Your task to perform on an android device: Go to Android settings Image 0: 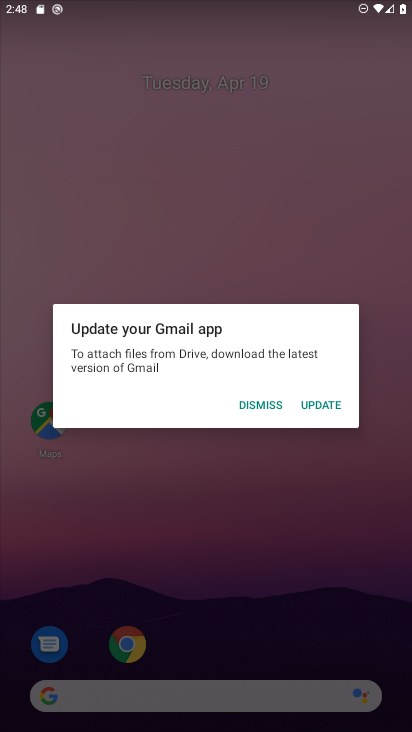
Step 0: press home button
Your task to perform on an android device: Go to Android settings Image 1: 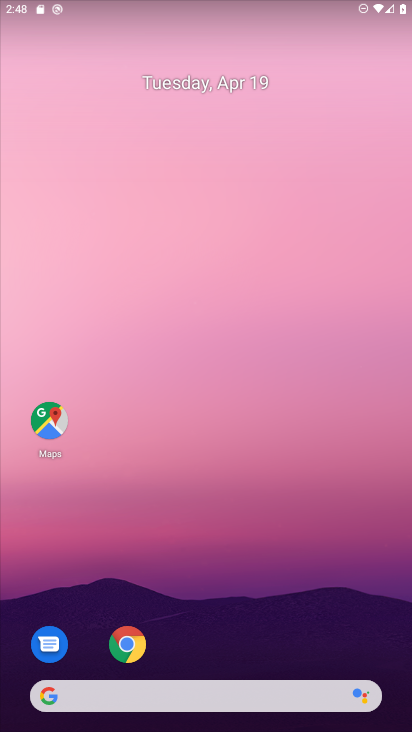
Step 1: drag from (202, 598) to (119, 88)
Your task to perform on an android device: Go to Android settings Image 2: 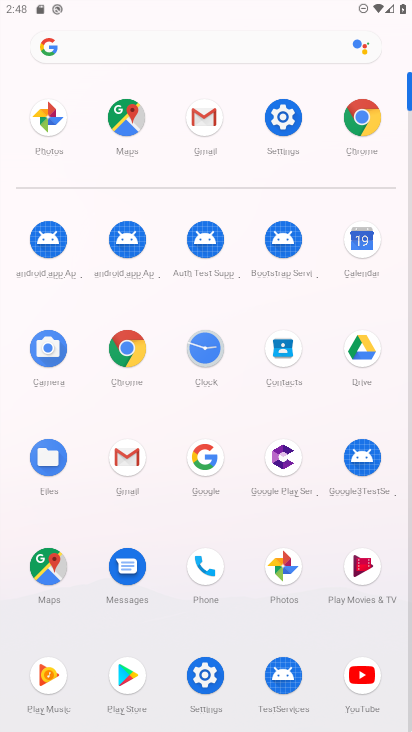
Step 2: click (283, 107)
Your task to perform on an android device: Go to Android settings Image 3: 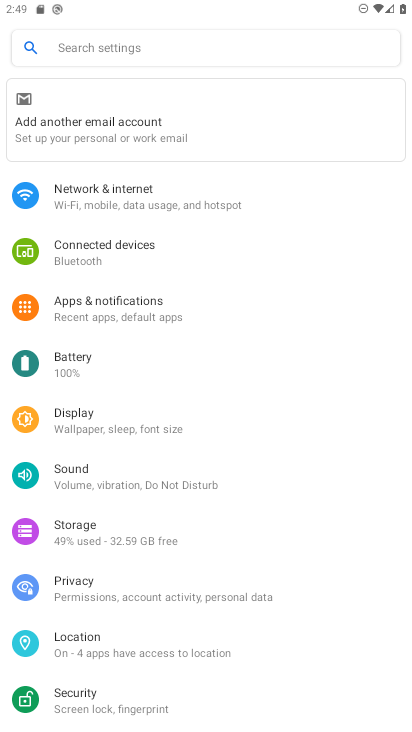
Step 3: drag from (123, 615) to (128, 217)
Your task to perform on an android device: Go to Android settings Image 4: 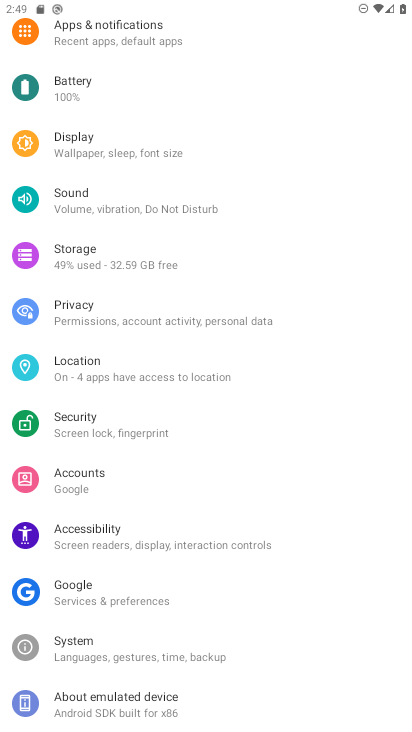
Step 4: click (70, 708)
Your task to perform on an android device: Go to Android settings Image 5: 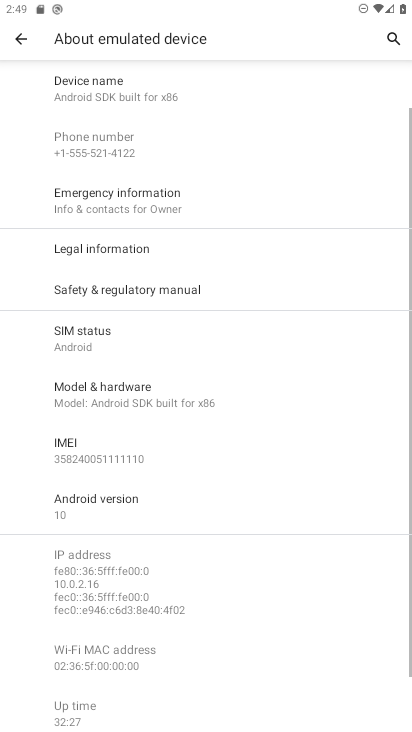
Step 5: drag from (115, 587) to (108, 238)
Your task to perform on an android device: Go to Android settings Image 6: 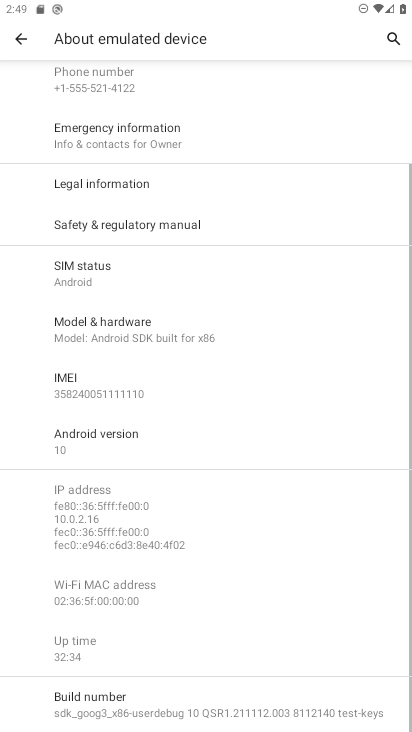
Step 6: click (102, 434)
Your task to perform on an android device: Go to Android settings Image 7: 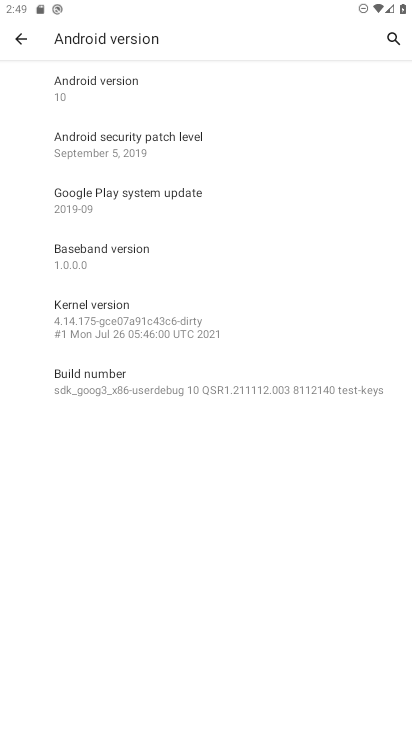
Step 7: task complete